Your task to perform on an android device: Open sound settings Image 0: 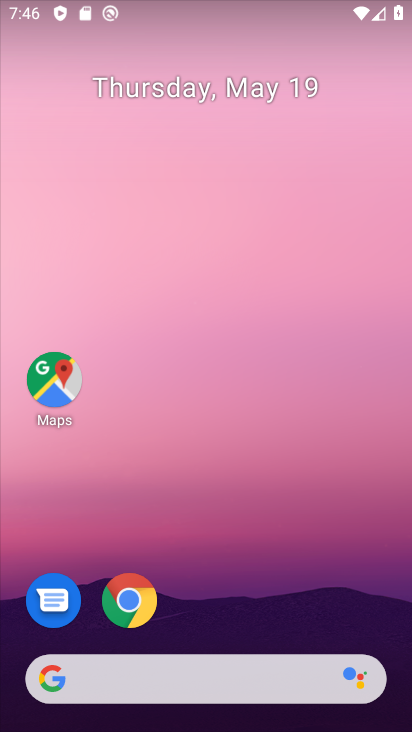
Step 0: drag from (263, 621) to (292, 35)
Your task to perform on an android device: Open sound settings Image 1: 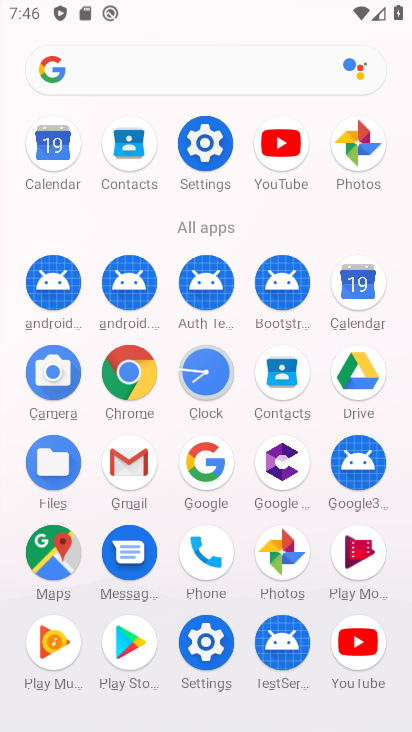
Step 1: click (197, 134)
Your task to perform on an android device: Open sound settings Image 2: 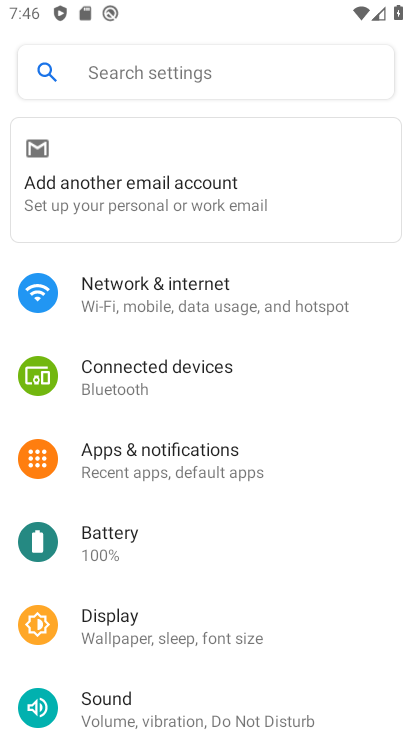
Step 2: click (159, 713)
Your task to perform on an android device: Open sound settings Image 3: 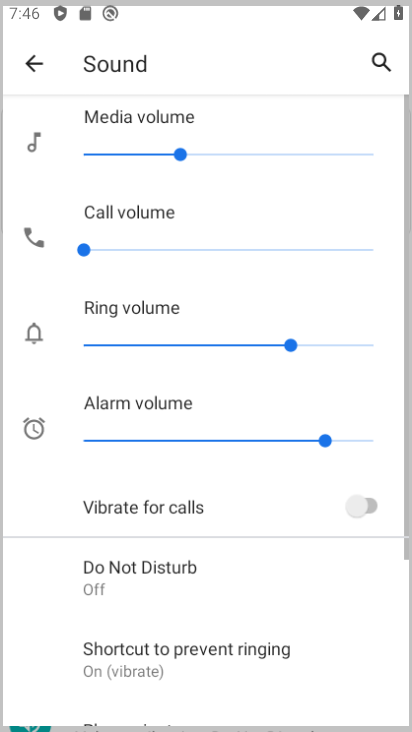
Step 3: task complete